Your task to perform on an android device: Open calendar and show me the fourth week of next month Image 0: 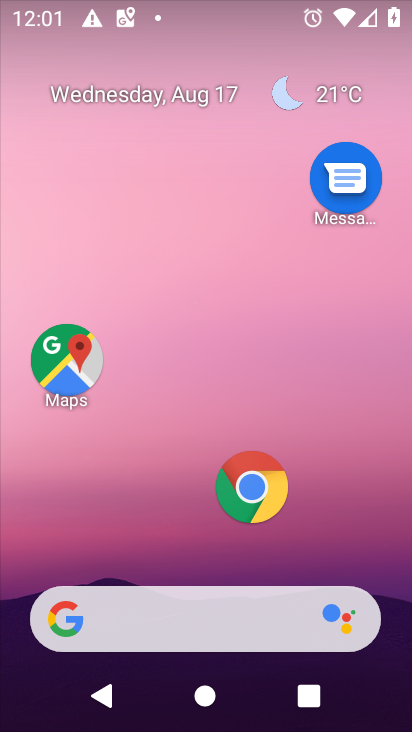
Step 0: drag from (88, 508) to (229, 0)
Your task to perform on an android device: Open calendar and show me the fourth week of next month Image 1: 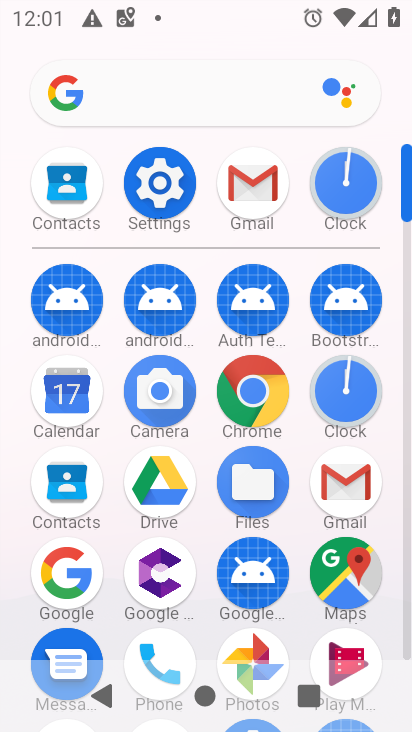
Step 1: click (56, 398)
Your task to perform on an android device: Open calendar and show me the fourth week of next month Image 2: 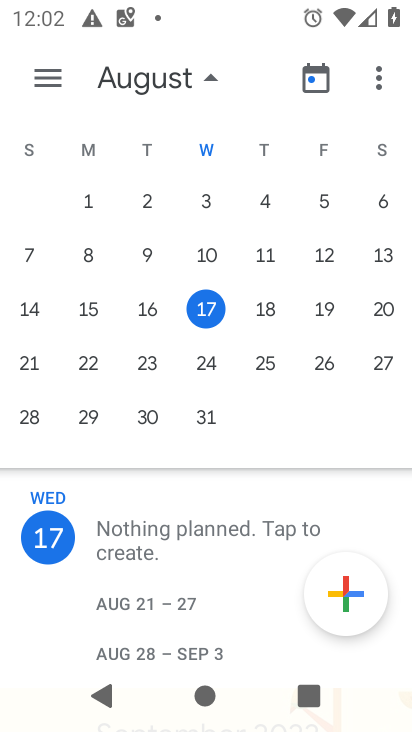
Step 2: drag from (379, 312) to (13, 314)
Your task to perform on an android device: Open calendar and show me the fourth week of next month Image 3: 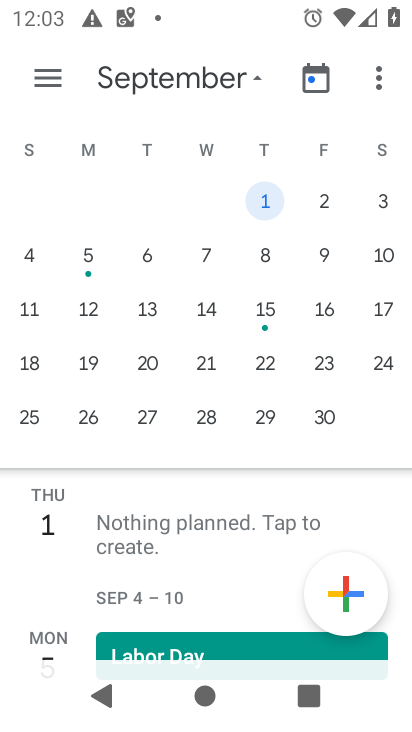
Step 3: click (82, 417)
Your task to perform on an android device: Open calendar and show me the fourth week of next month Image 4: 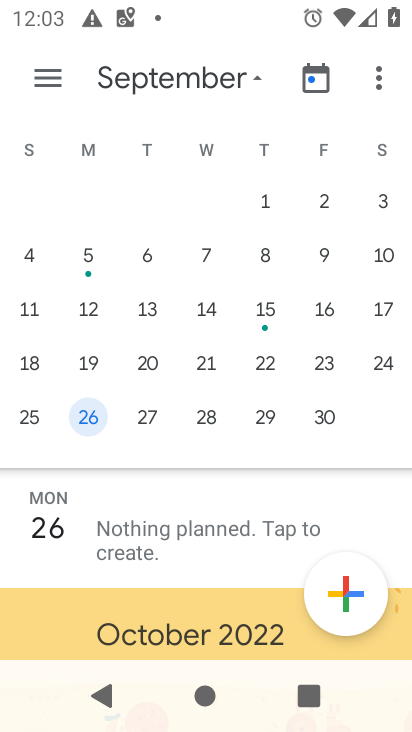
Step 4: task complete